Your task to perform on an android device: Show the shopping cart on bestbuy. Search for "usb-c" on bestbuy, select the first entry, and add it to the cart. Image 0: 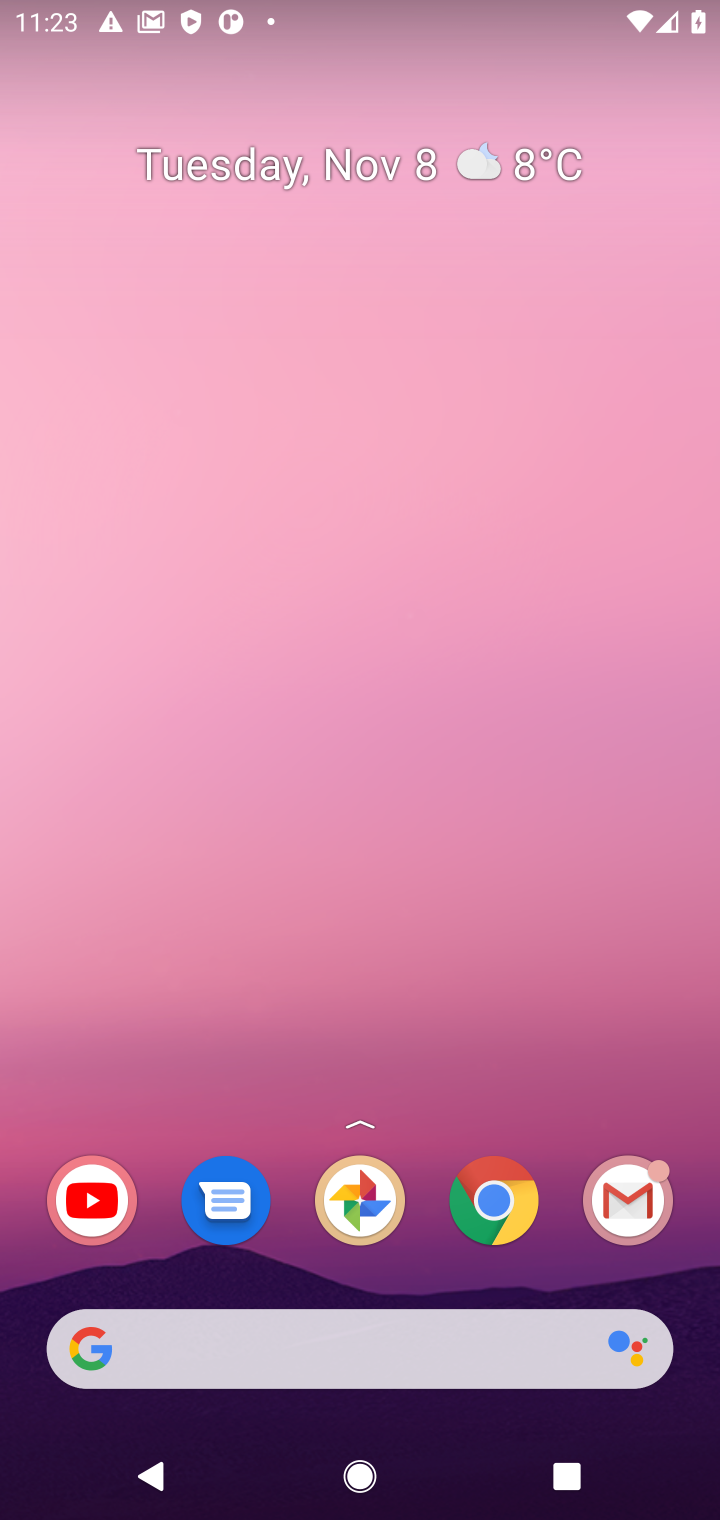
Step 0: click (636, 1357)
Your task to perform on an android device: Show the shopping cart on bestbuy. Search for "usb-c" on bestbuy, select the first entry, and add it to the cart. Image 1: 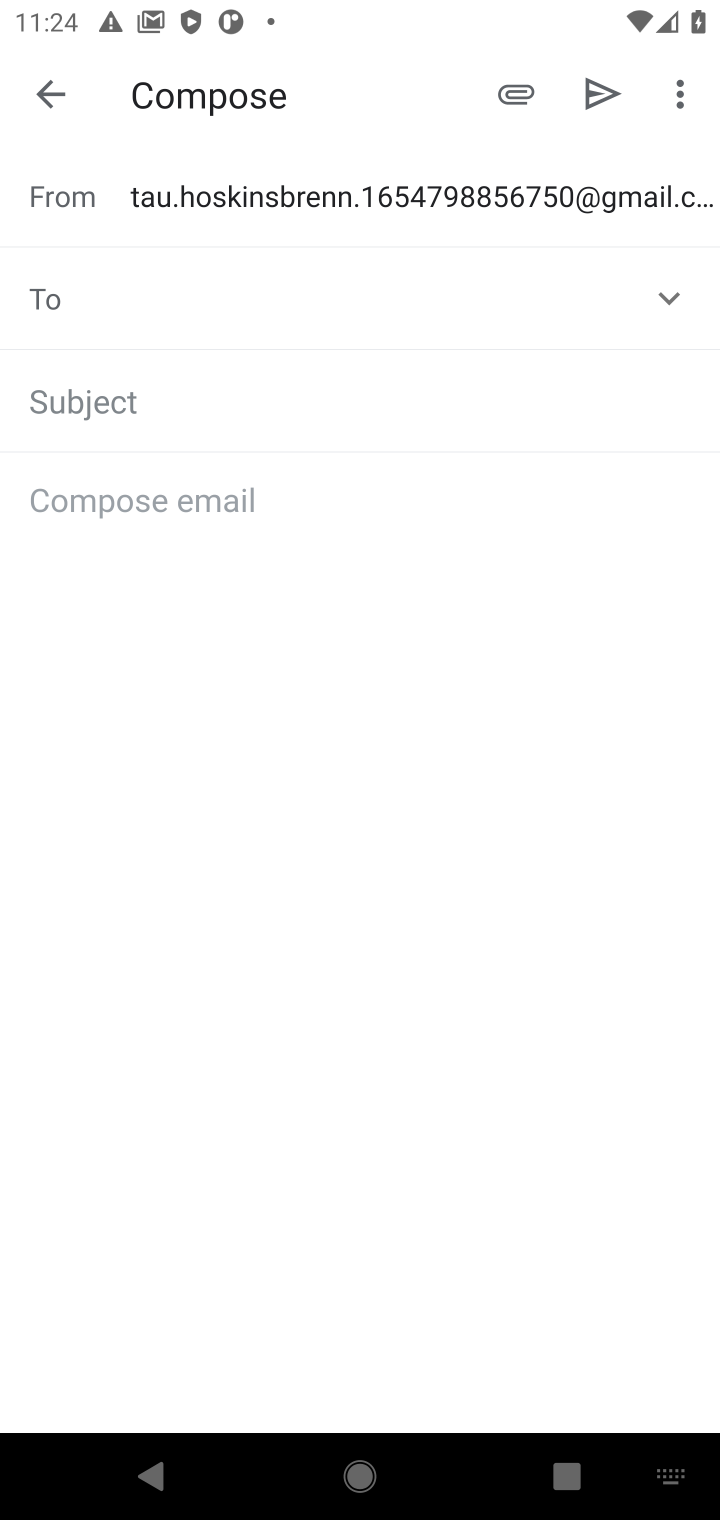
Step 1: press home button
Your task to perform on an android device: Show the shopping cart on bestbuy. Search for "usb-c" on bestbuy, select the first entry, and add it to the cart. Image 2: 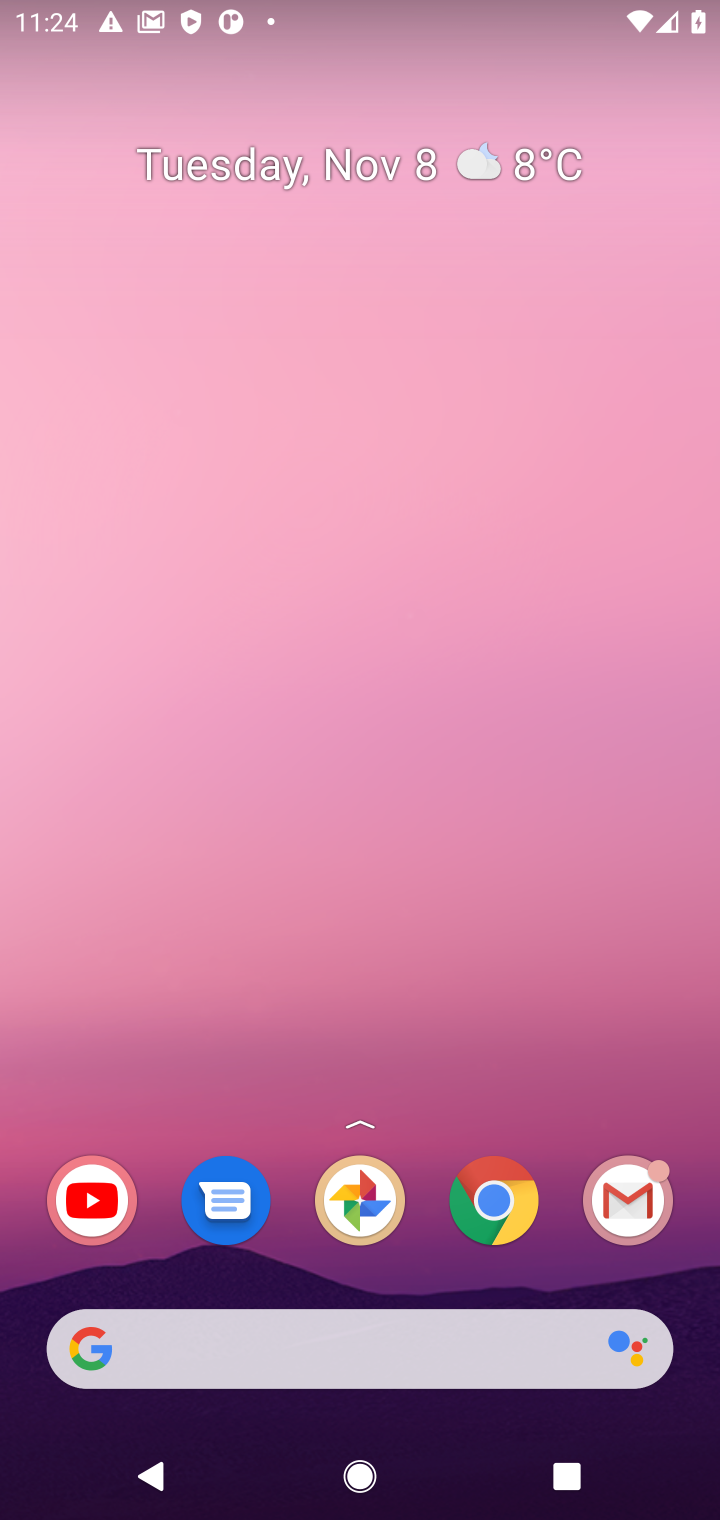
Step 2: click (286, 1386)
Your task to perform on an android device: Show the shopping cart on bestbuy. Search for "usb-c" on bestbuy, select the first entry, and add it to the cart. Image 3: 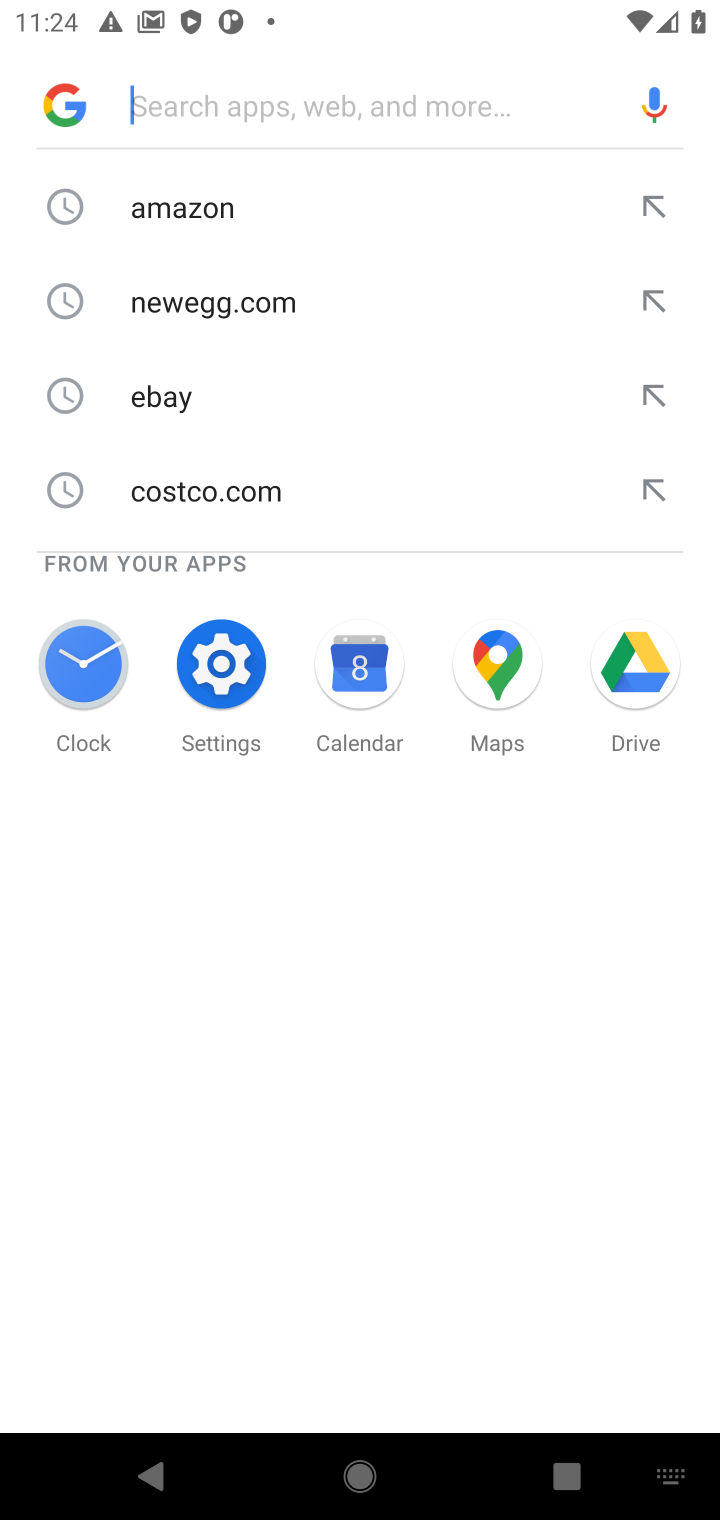
Step 3: type "bestbuy"
Your task to perform on an android device: Show the shopping cart on bestbuy. Search for "usb-c" on bestbuy, select the first entry, and add it to the cart. Image 4: 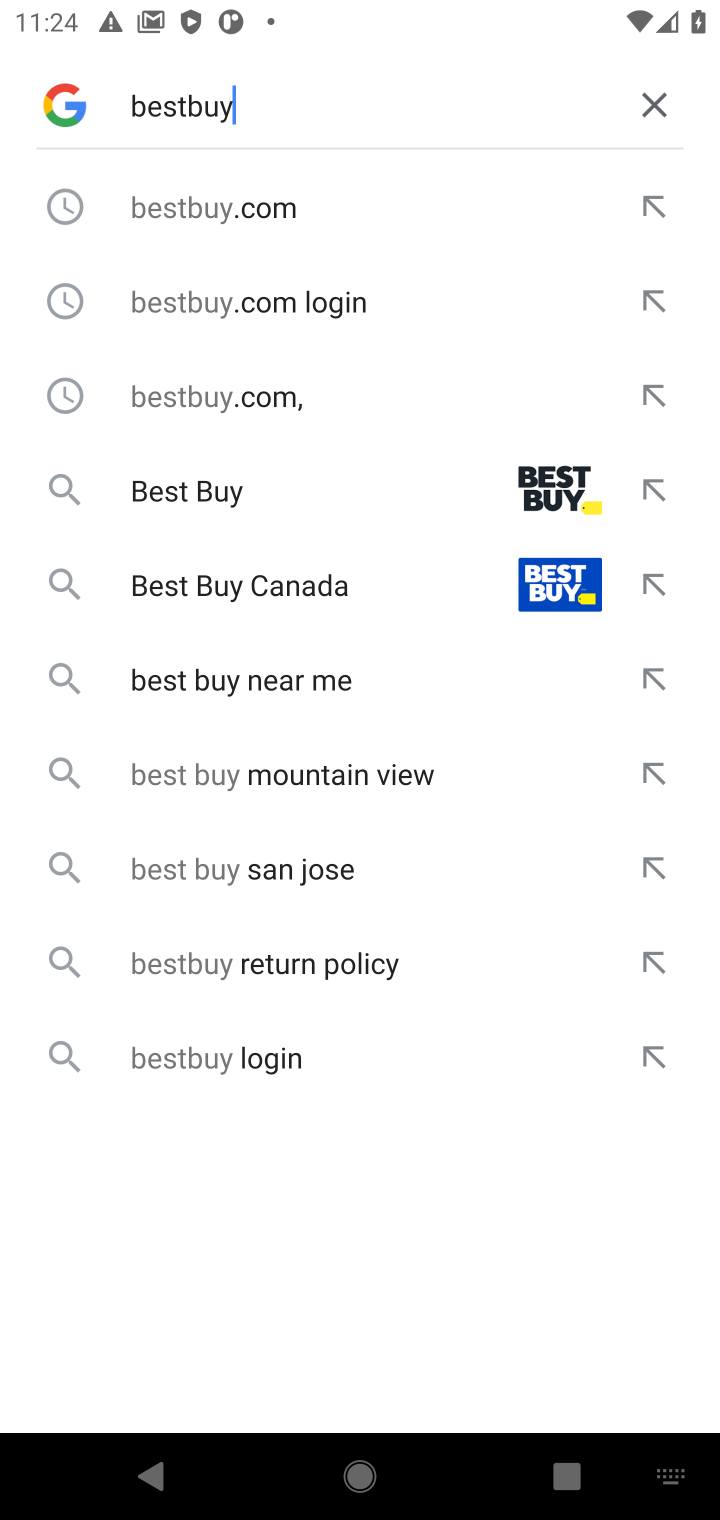
Step 4: click (214, 215)
Your task to perform on an android device: Show the shopping cart on bestbuy. Search for "usb-c" on bestbuy, select the first entry, and add it to the cart. Image 5: 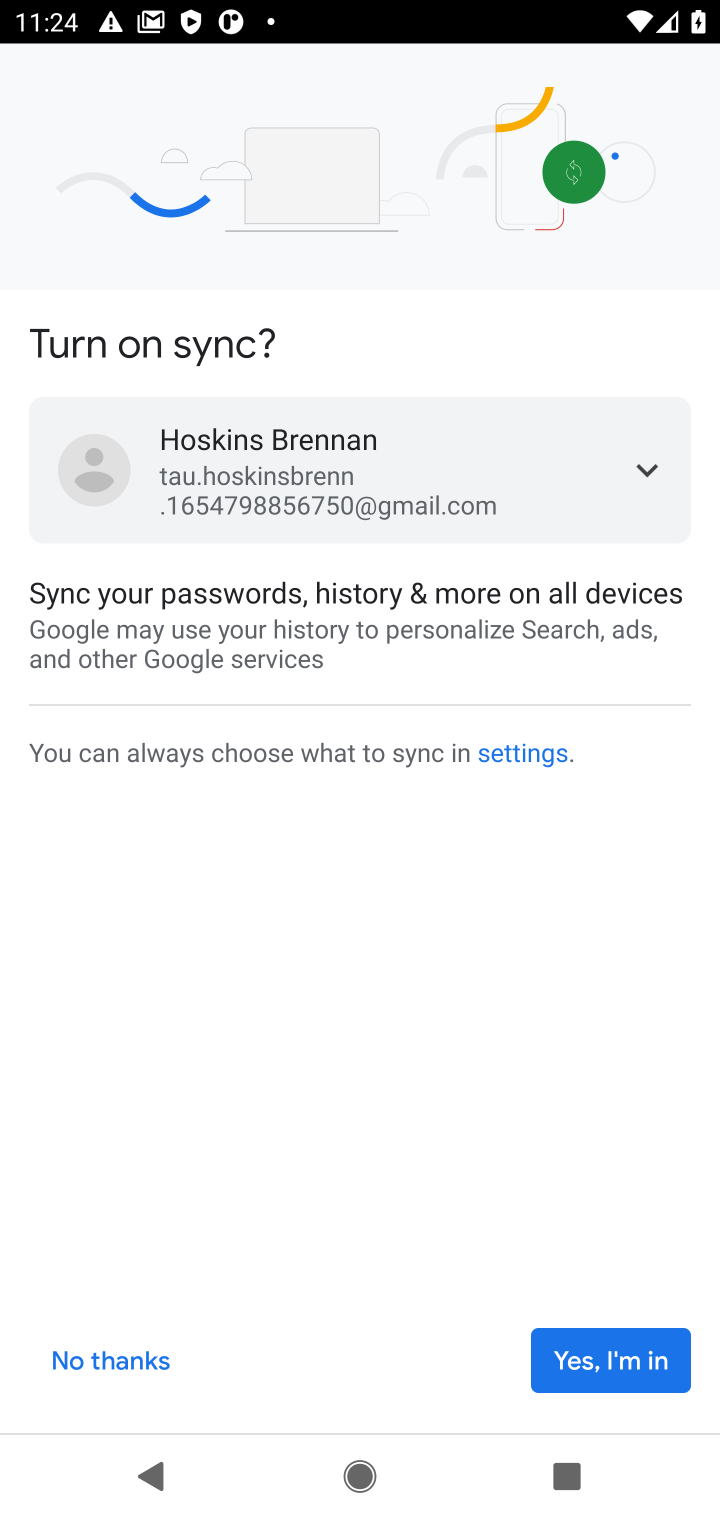
Step 5: click (601, 1344)
Your task to perform on an android device: Show the shopping cart on bestbuy. Search for "usb-c" on bestbuy, select the first entry, and add it to the cart. Image 6: 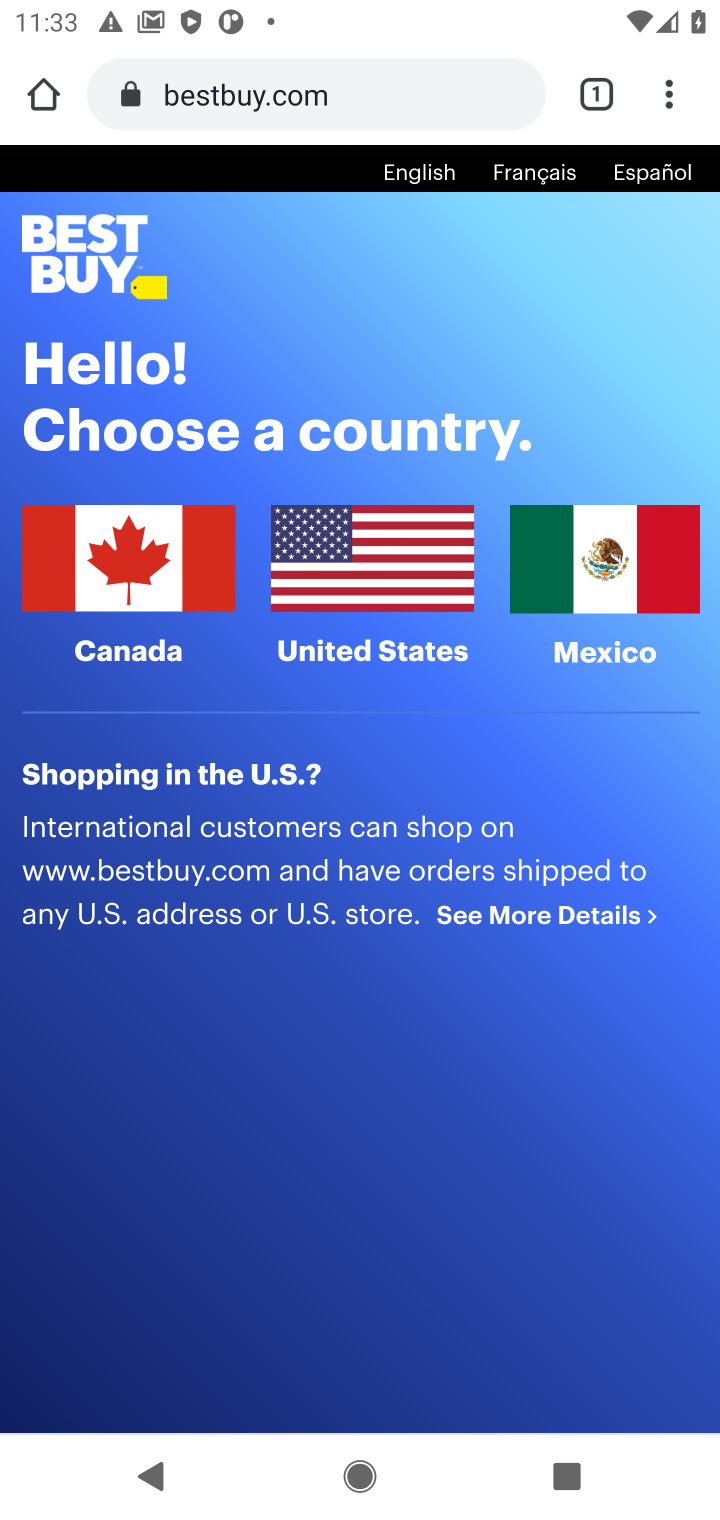
Step 6: task complete